Your task to perform on an android device: turn on location history Image 0: 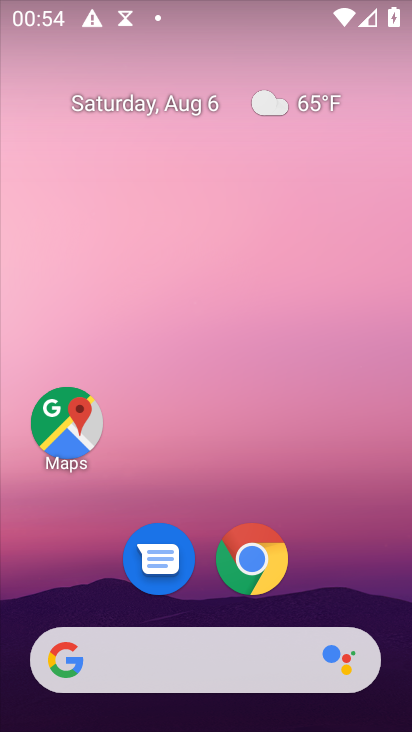
Step 0: click (60, 441)
Your task to perform on an android device: turn on location history Image 1: 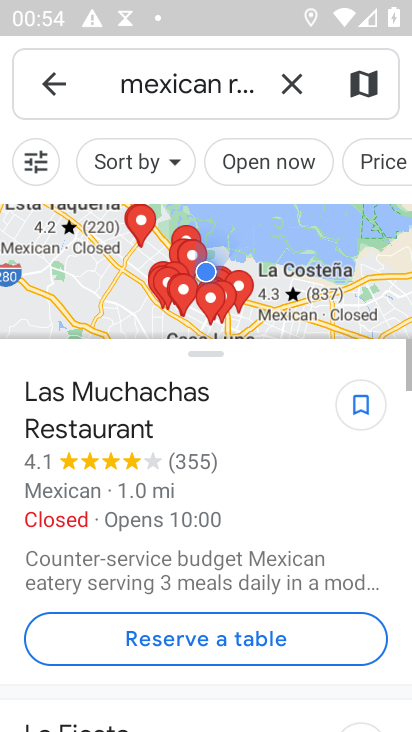
Step 1: click (54, 89)
Your task to perform on an android device: turn on location history Image 2: 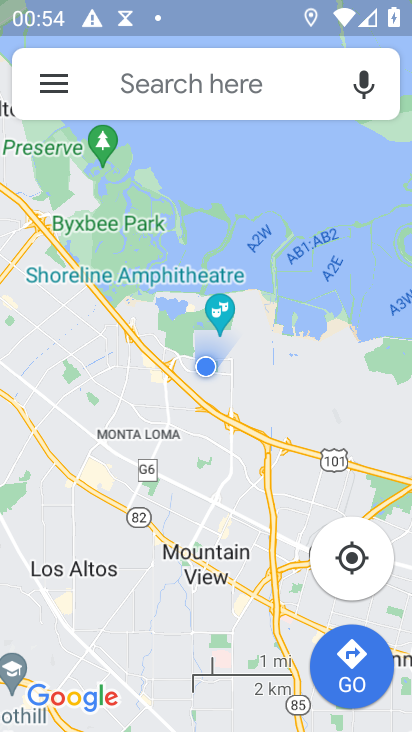
Step 2: click (50, 86)
Your task to perform on an android device: turn on location history Image 3: 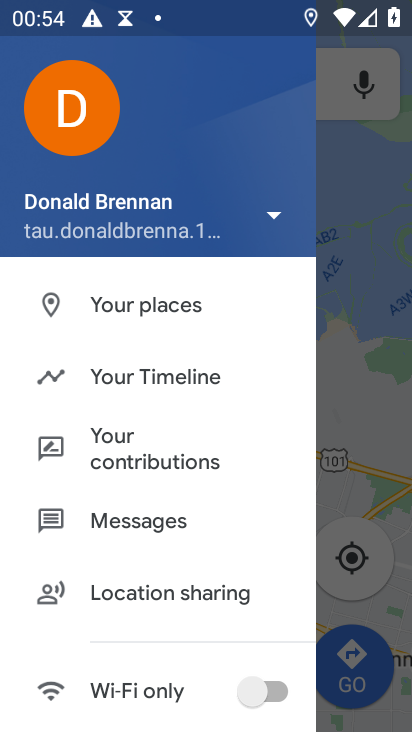
Step 3: click (110, 394)
Your task to perform on an android device: turn on location history Image 4: 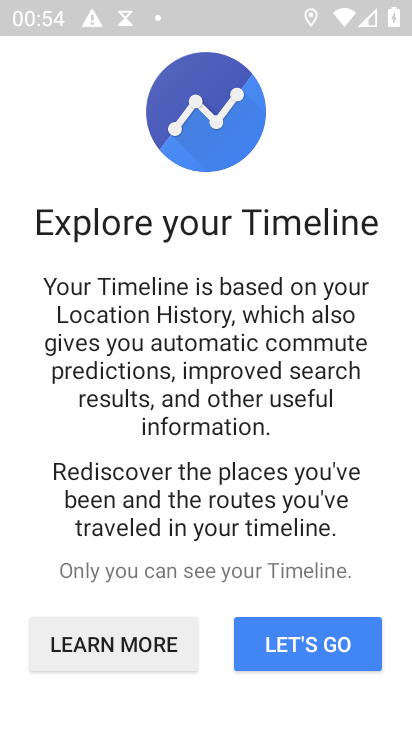
Step 4: click (329, 643)
Your task to perform on an android device: turn on location history Image 5: 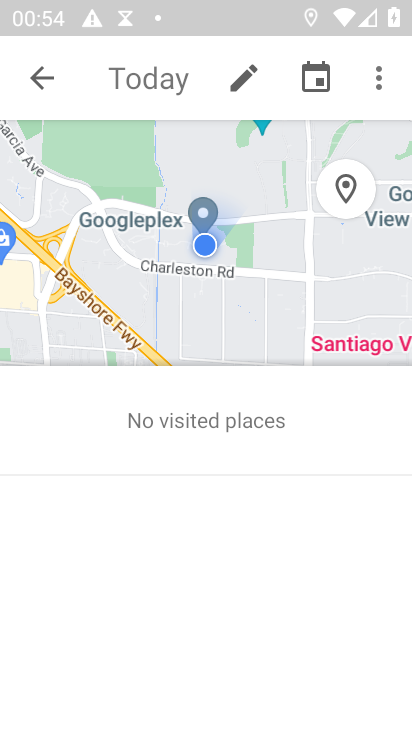
Step 5: click (383, 94)
Your task to perform on an android device: turn on location history Image 6: 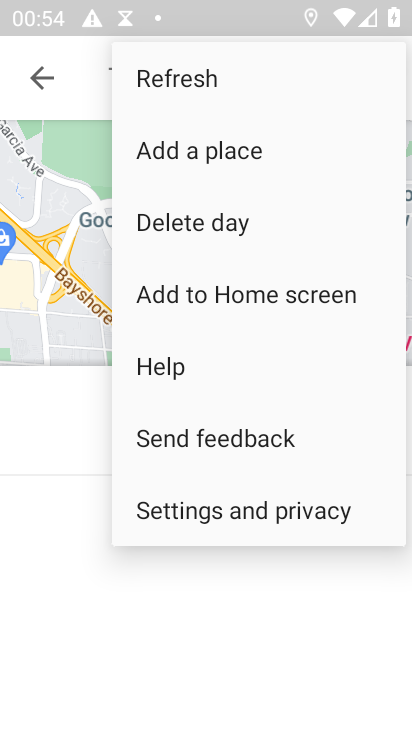
Step 6: click (195, 525)
Your task to perform on an android device: turn on location history Image 7: 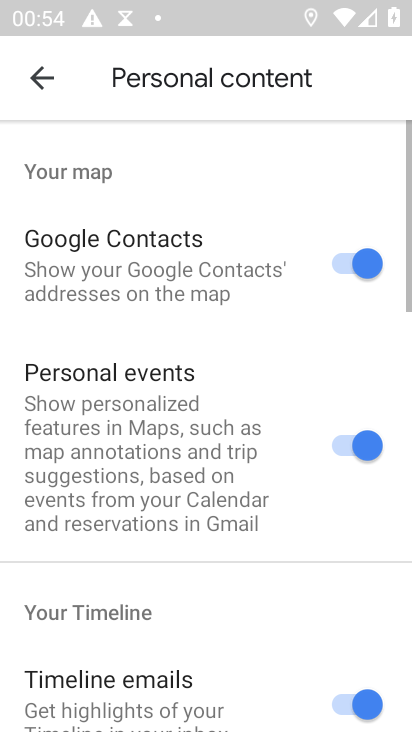
Step 7: drag from (204, 631) to (210, 235)
Your task to perform on an android device: turn on location history Image 8: 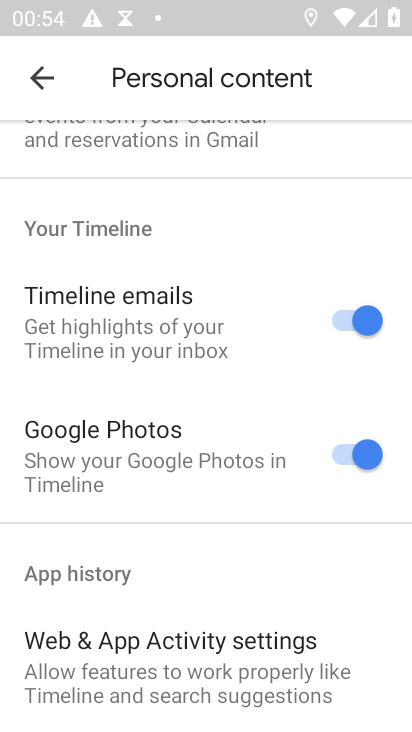
Step 8: drag from (239, 654) to (246, 305)
Your task to perform on an android device: turn on location history Image 9: 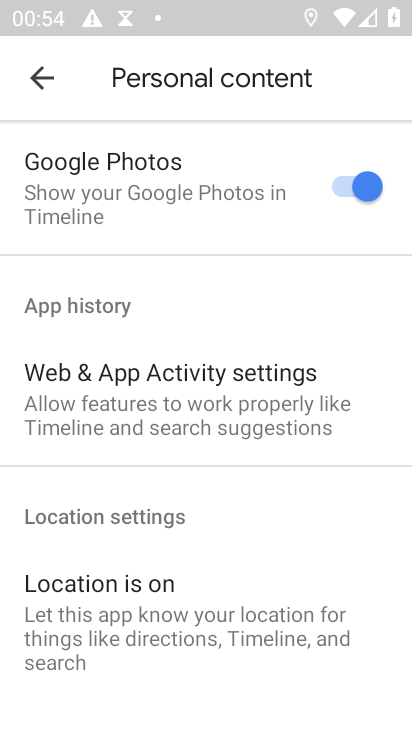
Step 9: drag from (267, 716) to (275, 352)
Your task to perform on an android device: turn on location history Image 10: 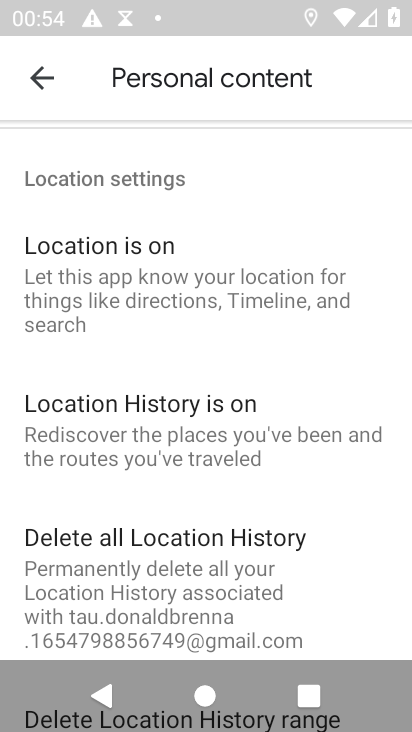
Step 10: click (255, 439)
Your task to perform on an android device: turn on location history Image 11: 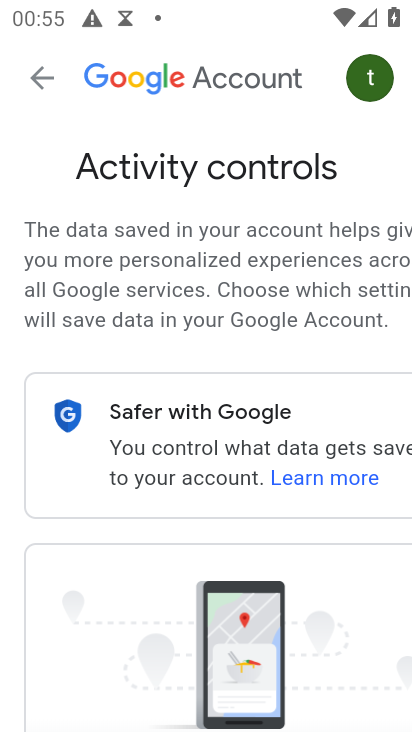
Step 11: task complete